Your task to perform on an android device: see sites visited before in the chrome app Image 0: 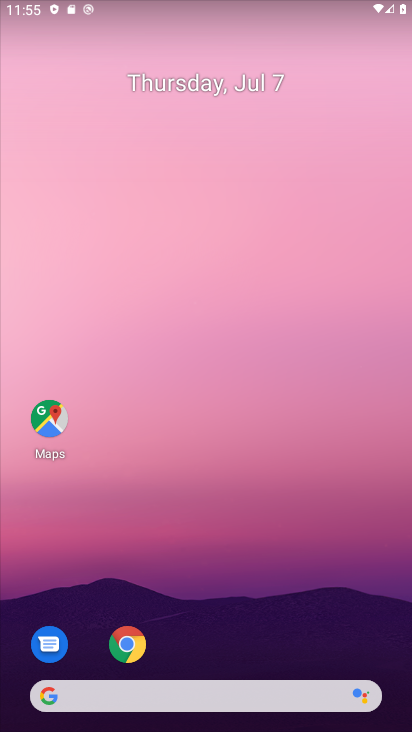
Step 0: drag from (222, 688) to (149, 247)
Your task to perform on an android device: see sites visited before in the chrome app Image 1: 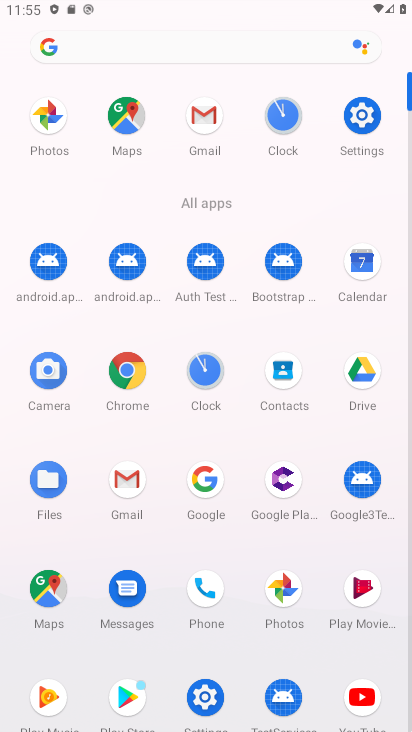
Step 1: click (127, 371)
Your task to perform on an android device: see sites visited before in the chrome app Image 2: 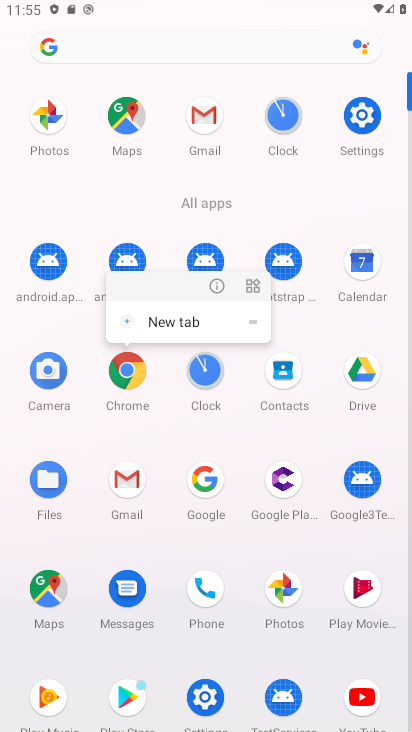
Step 2: click (134, 381)
Your task to perform on an android device: see sites visited before in the chrome app Image 3: 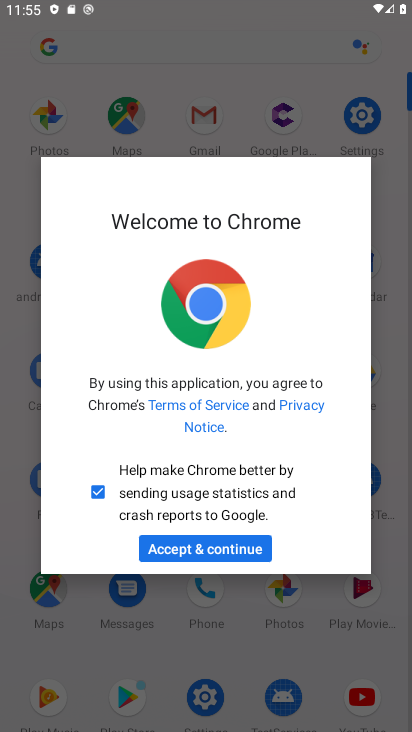
Step 3: click (232, 556)
Your task to perform on an android device: see sites visited before in the chrome app Image 4: 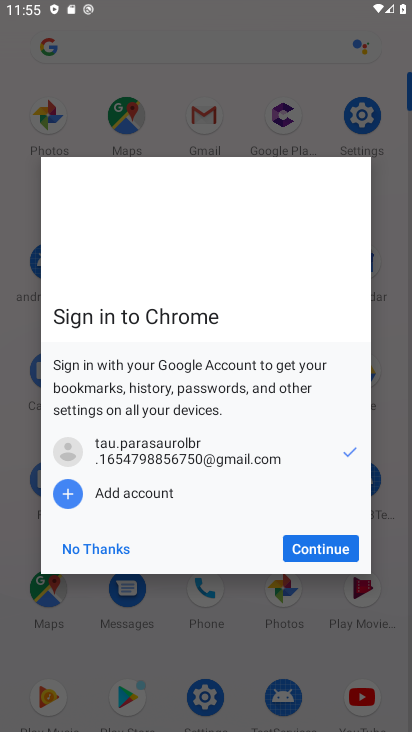
Step 4: click (311, 552)
Your task to perform on an android device: see sites visited before in the chrome app Image 5: 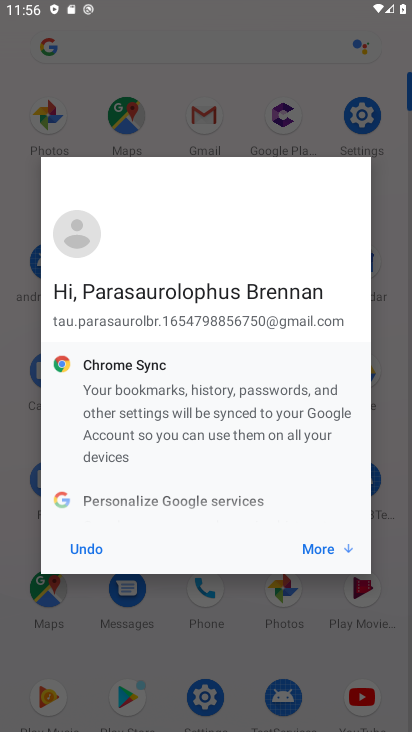
Step 5: click (311, 552)
Your task to perform on an android device: see sites visited before in the chrome app Image 6: 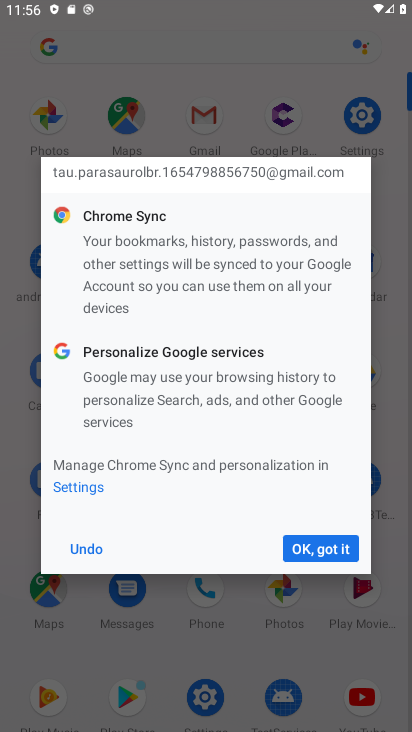
Step 6: click (311, 552)
Your task to perform on an android device: see sites visited before in the chrome app Image 7: 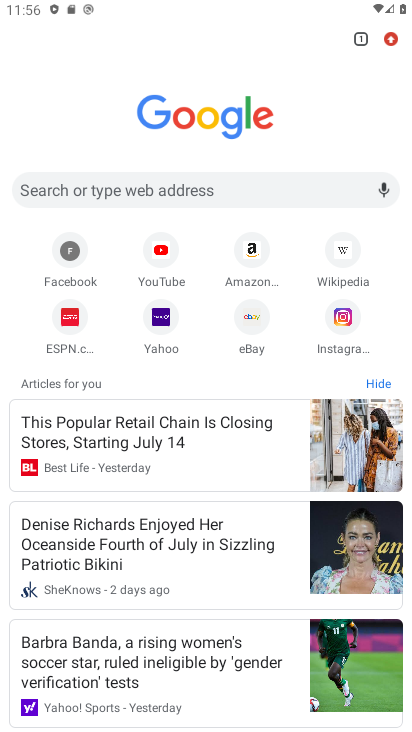
Step 7: task complete